Your task to perform on an android device: open a bookmark in the chrome app Image 0: 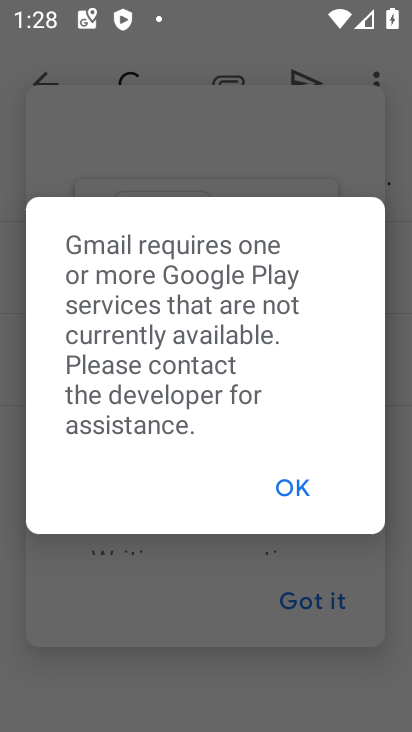
Step 0: press home button
Your task to perform on an android device: open a bookmark in the chrome app Image 1: 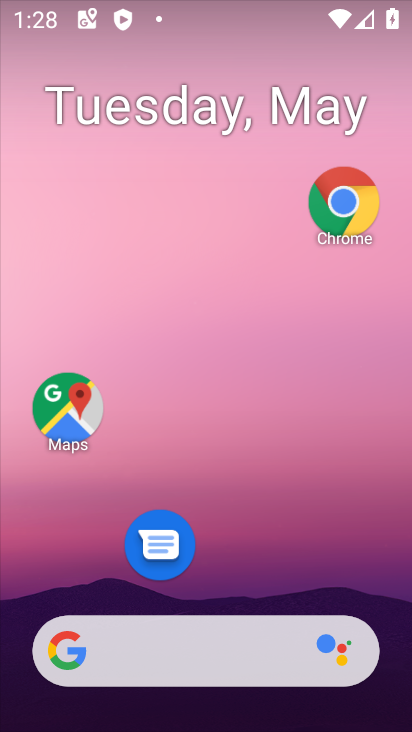
Step 1: click (349, 201)
Your task to perform on an android device: open a bookmark in the chrome app Image 2: 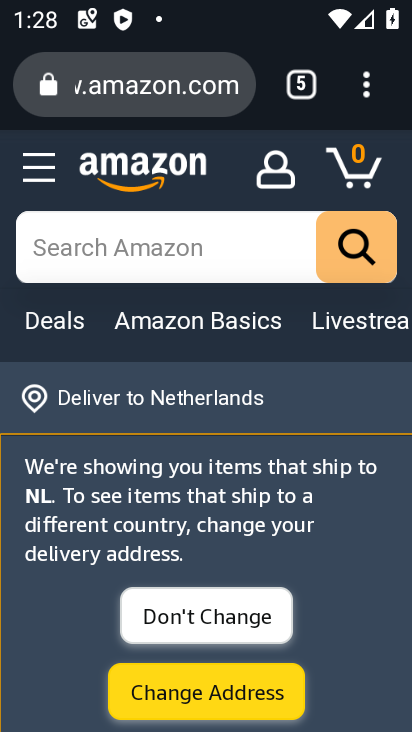
Step 2: click (379, 98)
Your task to perform on an android device: open a bookmark in the chrome app Image 3: 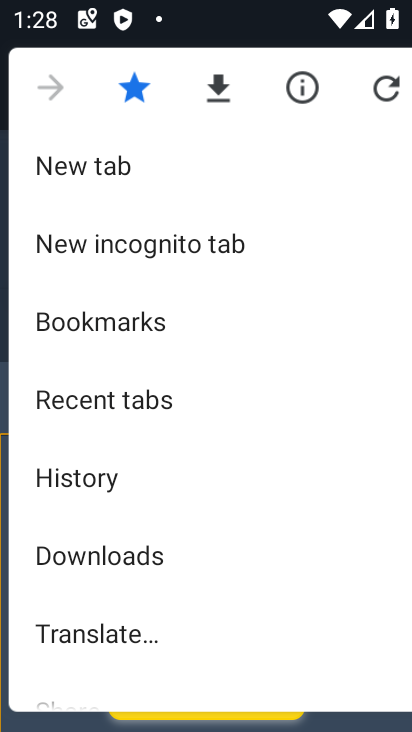
Step 3: click (153, 355)
Your task to perform on an android device: open a bookmark in the chrome app Image 4: 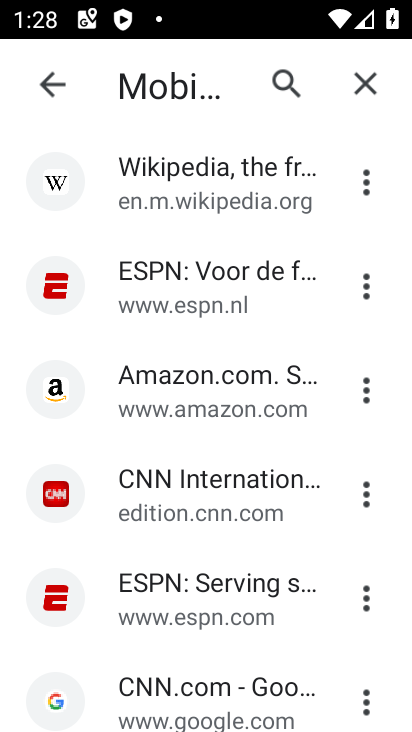
Step 4: click (158, 511)
Your task to perform on an android device: open a bookmark in the chrome app Image 5: 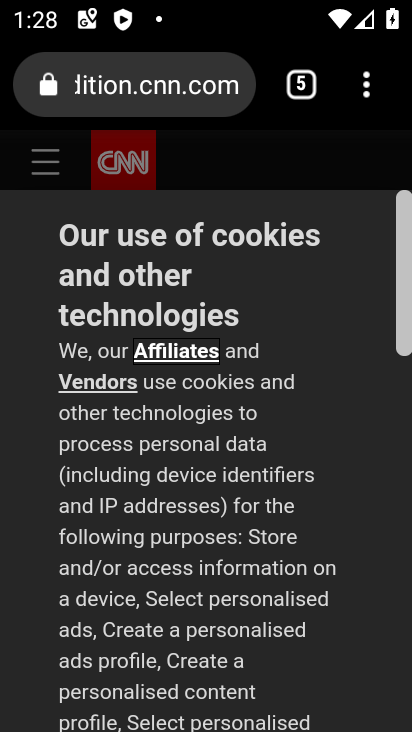
Step 5: task complete